Your task to perform on an android device: Open Youtube and go to the subscriptions tab Image 0: 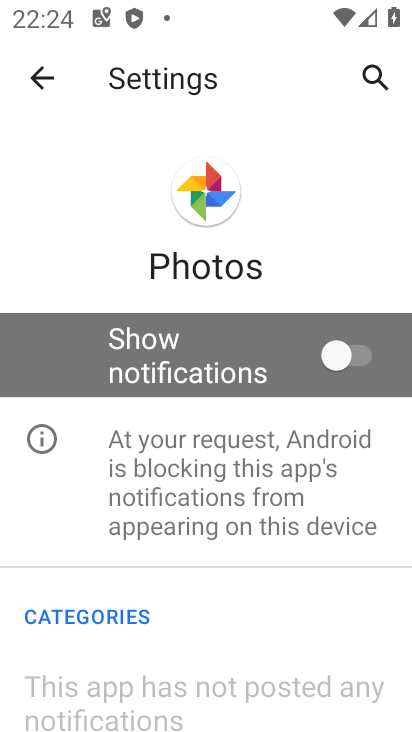
Step 0: press home button
Your task to perform on an android device: Open Youtube and go to the subscriptions tab Image 1: 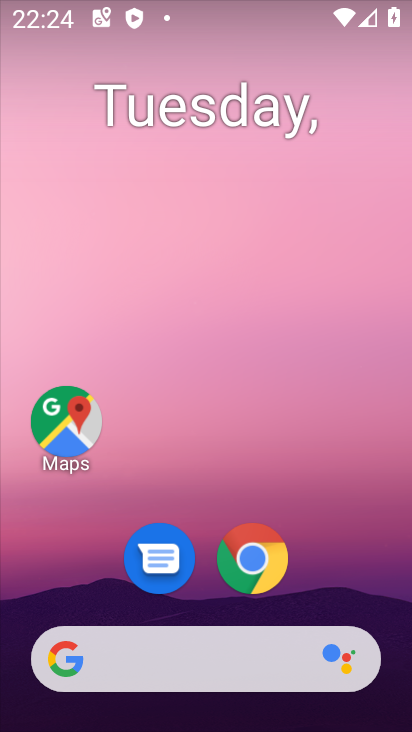
Step 1: drag from (306, 595) to (342, 12)
Your task to perform on an android device: Open Youtube and go to the subscriptions tab Image 2: 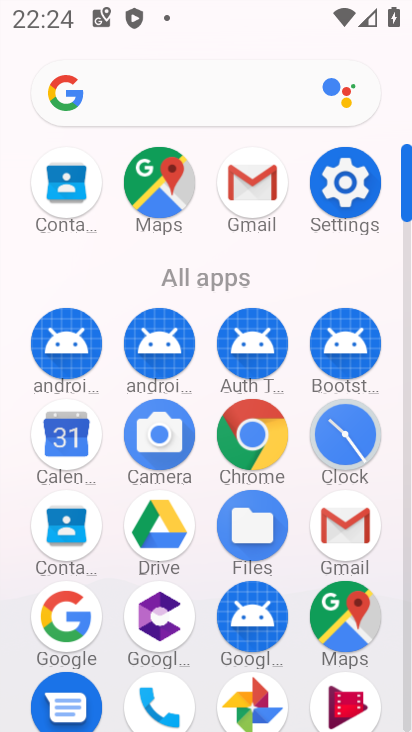
Step 2: drag from (291, 603) to (302, 159)
Your task to perform on an android device: Open Youtube and go to the subscriptions tab Image 3: 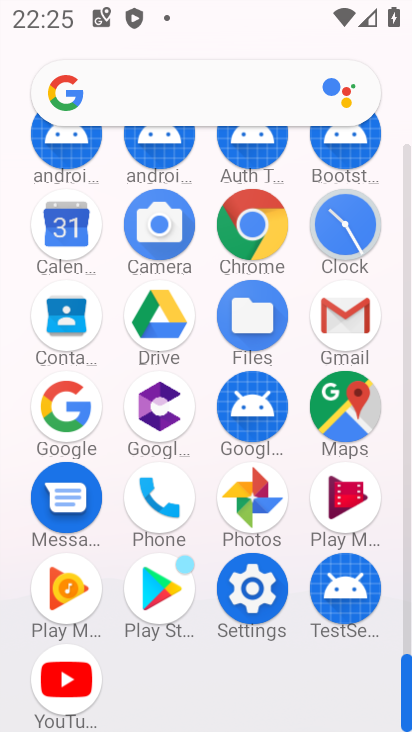
Step 3: click (54, 672)
Your task to perform on an android device: Open Youtube and go to the subscriptions tab Image 4: 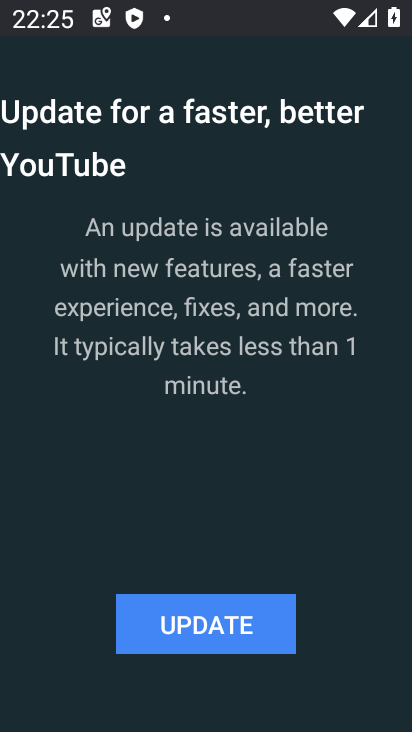
Step 4: click (221, 621)
Your task to perform on an android device: Open Youtube and go to the subscriptions tab Image 5: 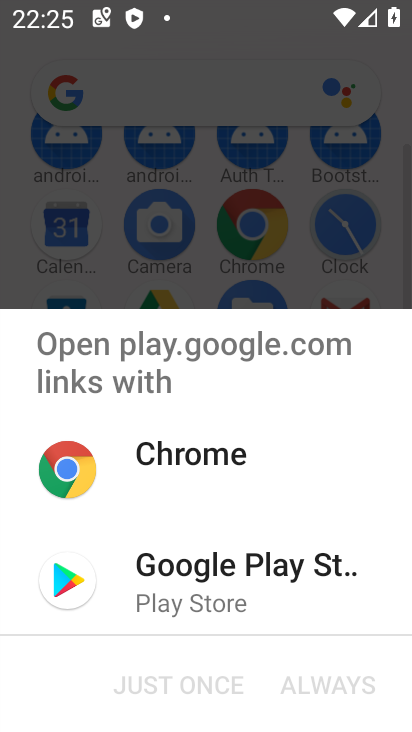
Step 5: click (126, 593)
Your task to perform on an android device: Open Youtube and go to the subscriptions tab Image 6: 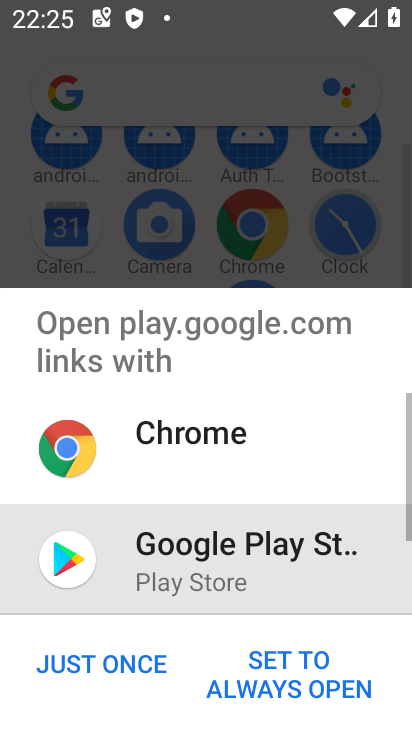
Step 6: click (52, 663)
Your task to perform on an android device: Open Youtube and go to the subscriptions tab Image 7: 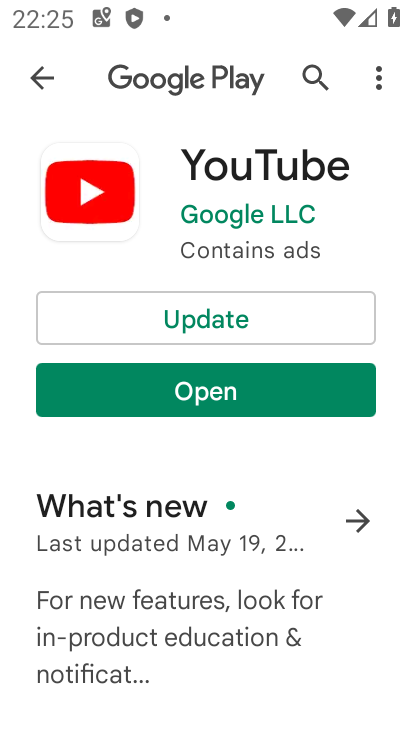
Step 7: click (196, 299)
Your task to perform on an android device: Open Youtube and go to the subscriptions tab Image 8: 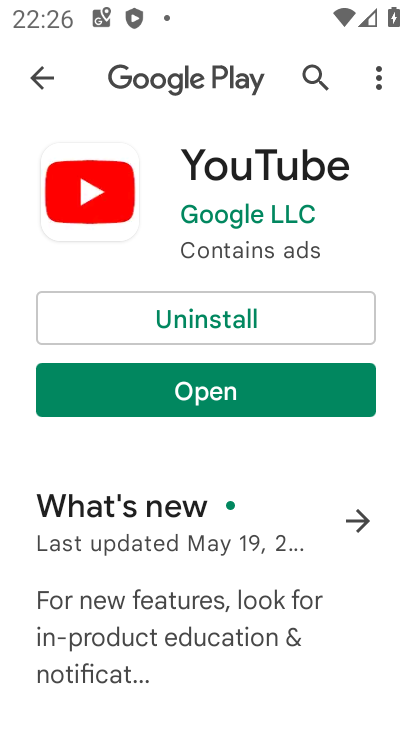
Step 8: click (198, 382)
Your task to perform on an android device: Open Youtube and go to the subscriptions tab Image 9: 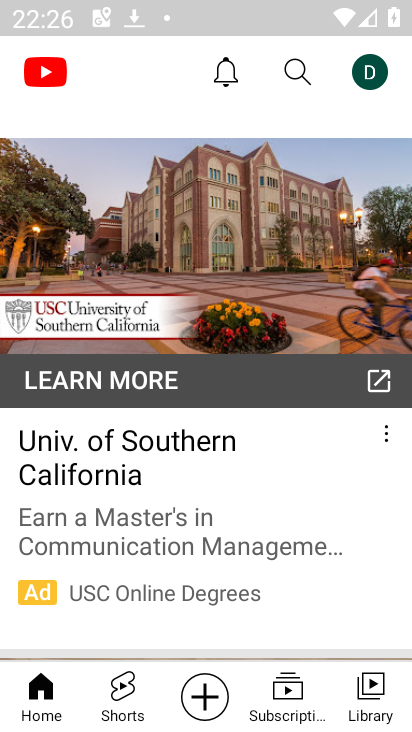
Step 9: click (293, 711)
Your task to perform on an android device: Open Youtube and go to the subscriptions tab Image 10: 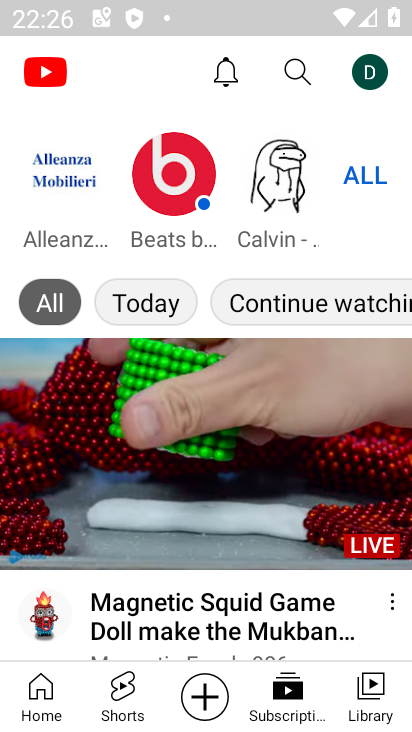
Step 10: task complete